Your task to perform on an android device: Empty the shopping cart on target. Search for macbook pro 15 inch on target, select the first entry, and add it to the cart. Image 0: 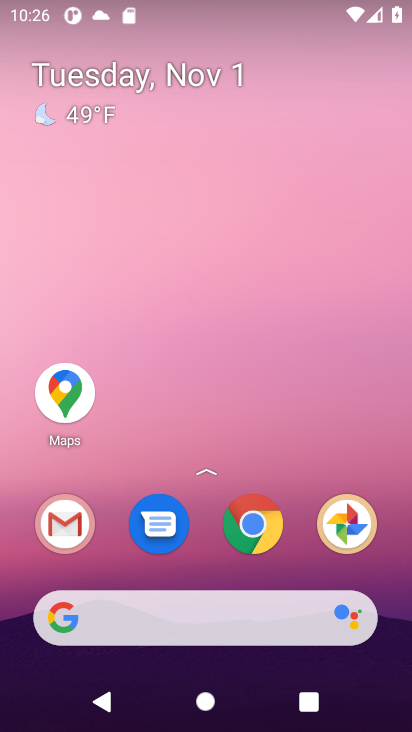
Step 0: press home button
Your task to perform on an android device: Empty the shopping cart on target. Search for macbook pro 15 inch on target, select the first entry, and add it to the cart. Image 1: 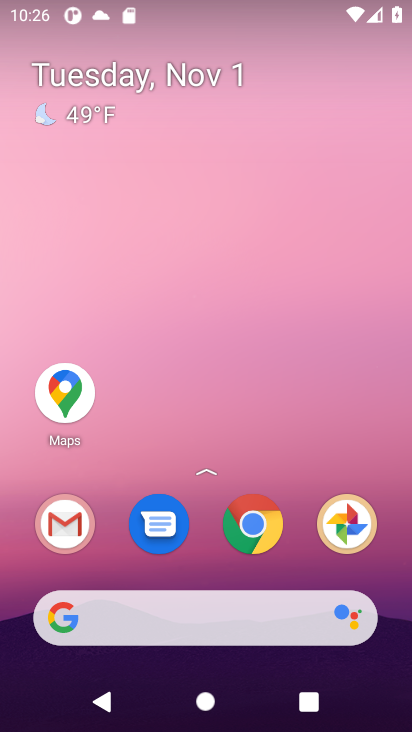
Step 1: click (80, 622)
Your task to perform on an android device: Empty the shopping cart on target. Search for macbook pro 15 inch on target, select the first entry, and add it to the cart. Image 2: 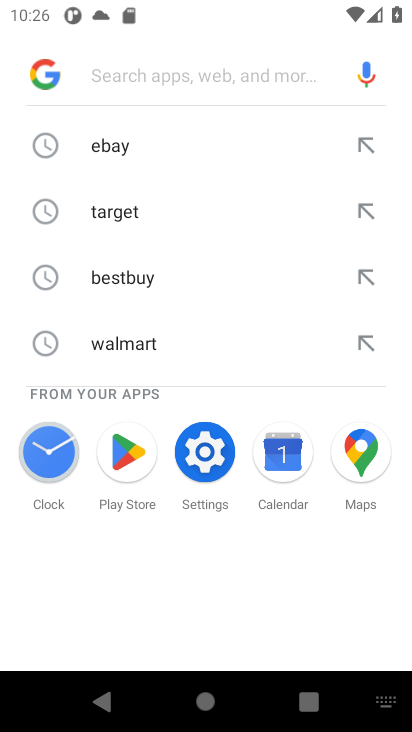
Step 2: click (148, 212)
Your task to perform on an android device: Empty the shopping cart on target. Search for macbook pro 15 inch on target, select the first entry, and add it to the cart. Image 3: 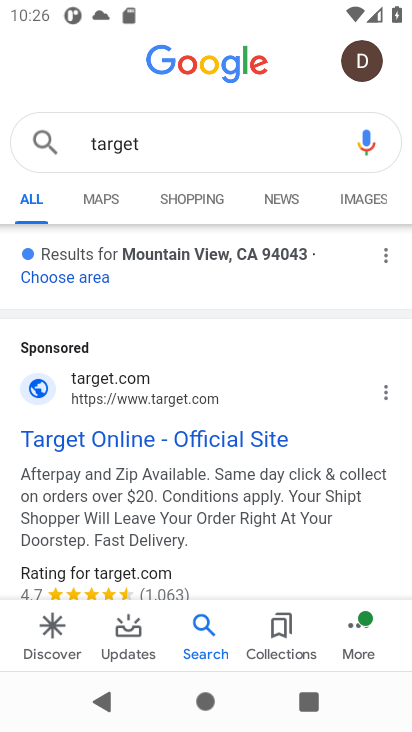
Step 3: drag from (256, 493) to (258, 296)
Your task to perform on an android device: Empty the shopping cart on target. Search for macbook pro 15 inch on target, select the first entry, and add it to the cart. Image 4: 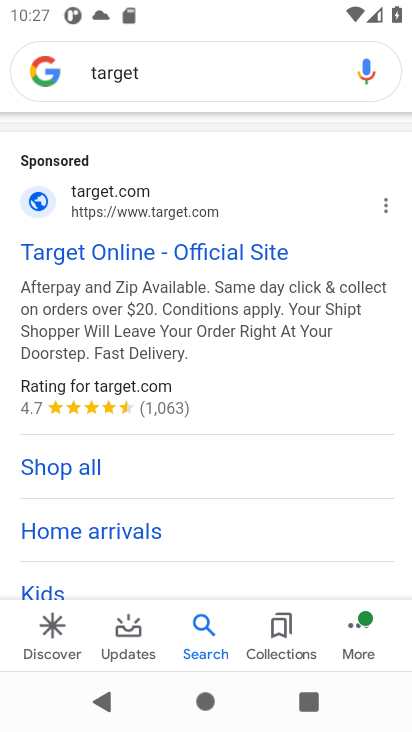
Step 4: click (142, 253)
Your task to perform on an android device: Empty the shopping cart on target. Search for macbook pro 15 inch on target, select the first entry, and add it to the cart. Image 5: 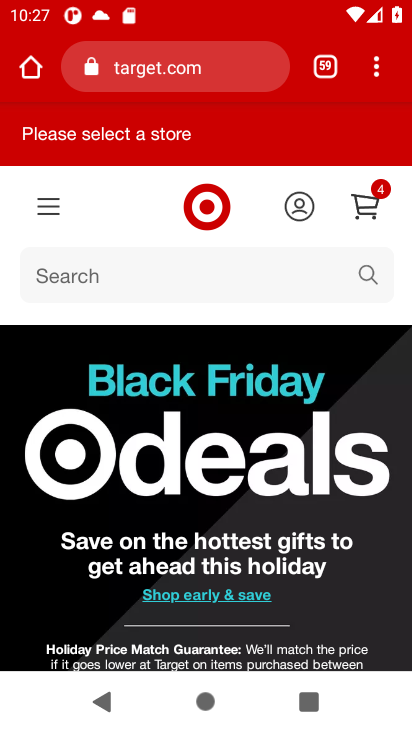
Step 5: click (373, 208)
Your task to perform on an android device: Empty the shopping cart on target. Search for macbook pro 15 inch on target, select the first entry, and add it to the cart. Image 6: 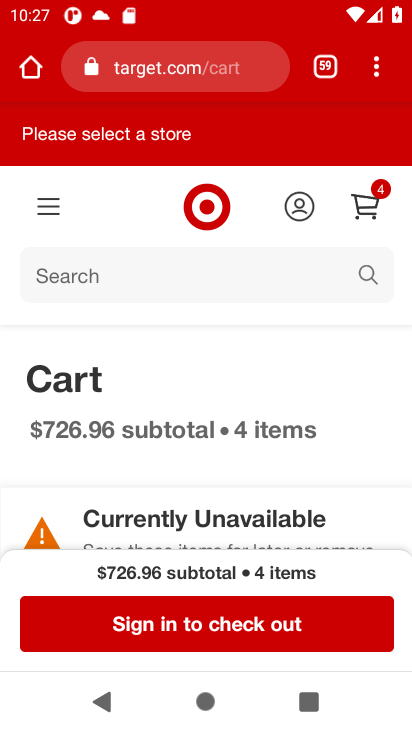
Step 6: drag from (206, 509) to (189, 182)
Your task to perform on an android device: Empty the shopping cart on target. Search for macbook pro 15 inch on target, select the first entry, and add it to the cart. Image 7: 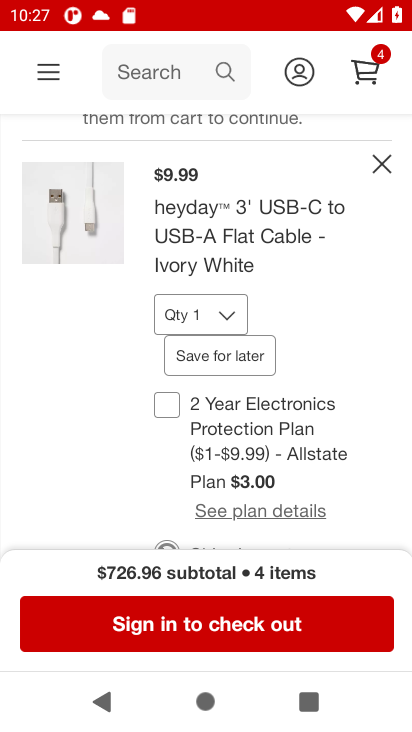
Step 7: drag from (195, 441) to (175, 228)
Your task to perform on an android device: Empty the shopping cart on target. Search for macbook pro 15 inch on target, select the first entry, and add it to the cart. Image 8: 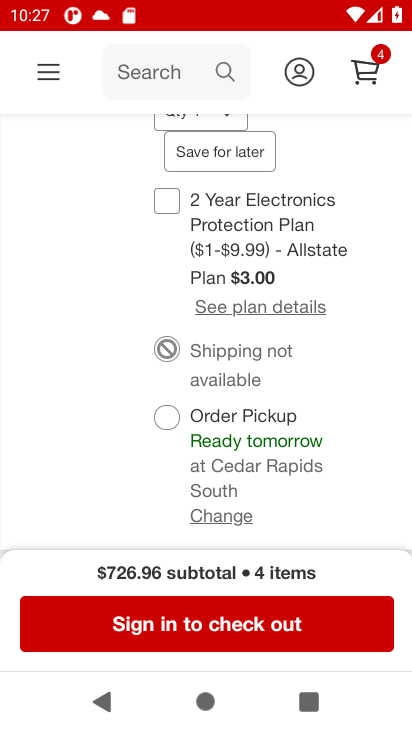
Step 8: drag from (212, 438) to (216, 186)
Your task to perform on an android device: Empty the shopping cart on target. Search for macbook pro 15 inch on target, select the first entry, and add it to the cart. Image 9: 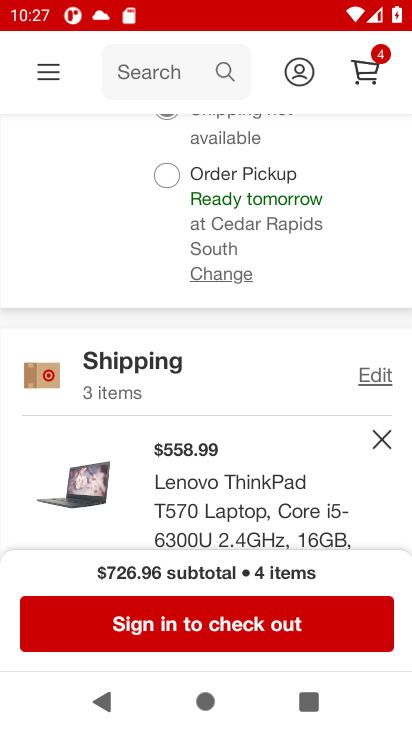
Step 9: drag from (217, 499) to (218, 183)
Your task to perform on an android device: Empty the shopping cart on target. Search for macbook pro 15 inch on target, select the first entry, and add it to the cart. Image 10: 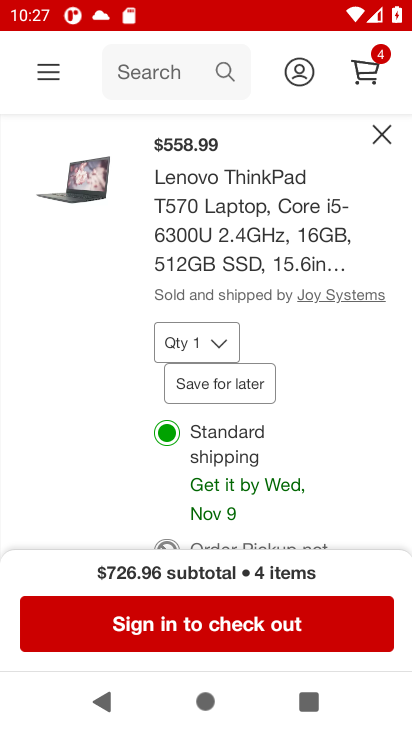
Step 10: drag from (239, 514) to (245, 179)
Your task to perform on an android device: Empty the shopping cart on target. Search for macbook pro 15 inch on target, select the first entry, and add it to the cart. Image 11: 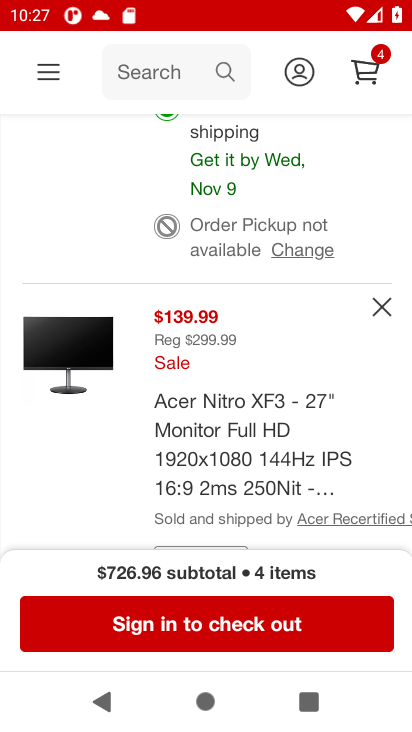
Step 11: click (382, 306)
Your task to perform on an android device: Empty the shopping cart on target. Search for macbook pro 15 inch on target, select the first entry, and add it to the cart. Image 12: 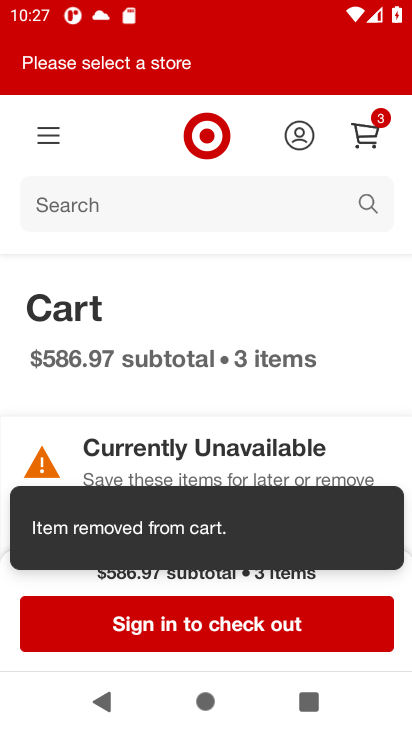
Step 12: drag from (322, 408) to (296, 181)
Your task to perform on an android device: Empty the shopping cart on target. Search for macbook pro 15 inch on target, select the first entry, and add it to the cart. Image 13: 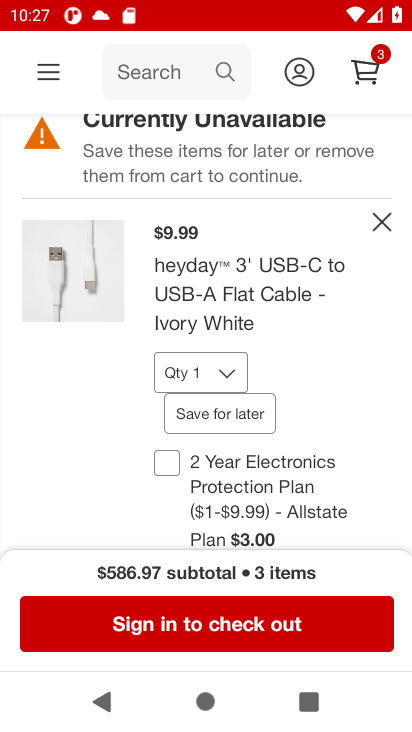
Step 13: click (385, 221)
Your task to perform on an android device: Empty the shopping cart on target. Search for macbook pro 15 inch on target, select the first entry, and add it to the cart. Image 14: 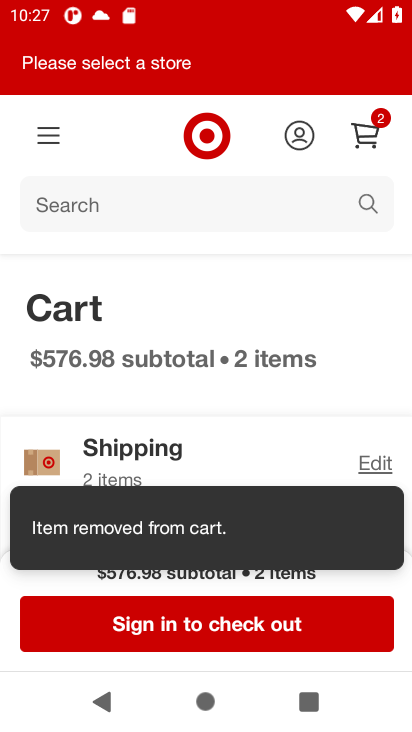
Step 14: drag from (297, 403) to (290, 195)
Your task to perform on an android device: Empty the shopping cart on target. Search for macbook pro 15 inch on target, select the first entry, and add it to the cart. Image 15: 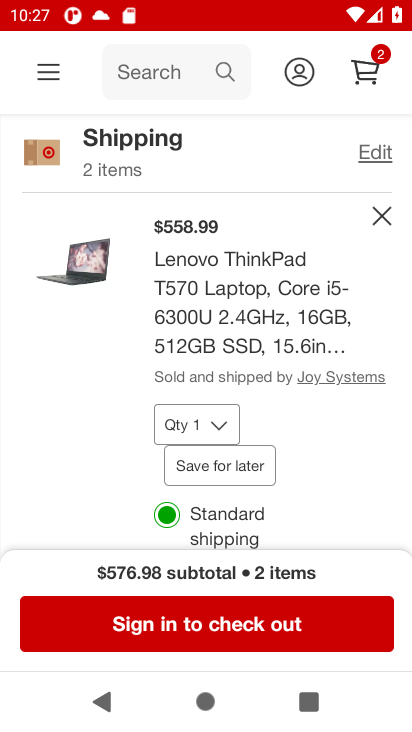
Step 15: click (380, 214)
Your task to perform on an android device: Empty the shopping cart on target. Search for macbook pro 15 inch on target, select the first entry, and add it to the cart. Image 16: 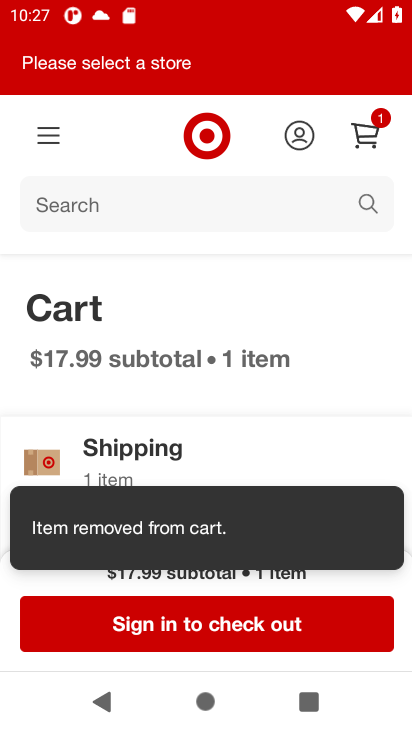
Step 16: drag from (309, 448) to (309, 223)
Your task to perform on an android device: Empty the shopping cart on target. Search for macbook pro 15 inch on target, select the first entry, and add it to the cart. Image 17: 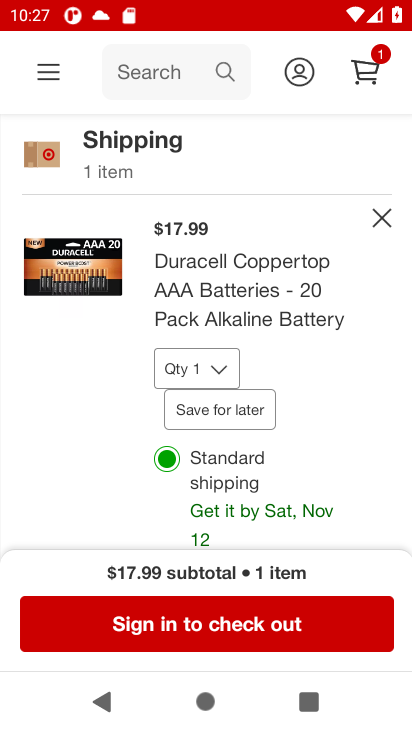
Step 17: click (378, 215)
Your task to perform on an android device: Empty the shopping cart on target. Search for macbook pro 15 inch on target, select the first entry, and add it to the cart. Image 18: 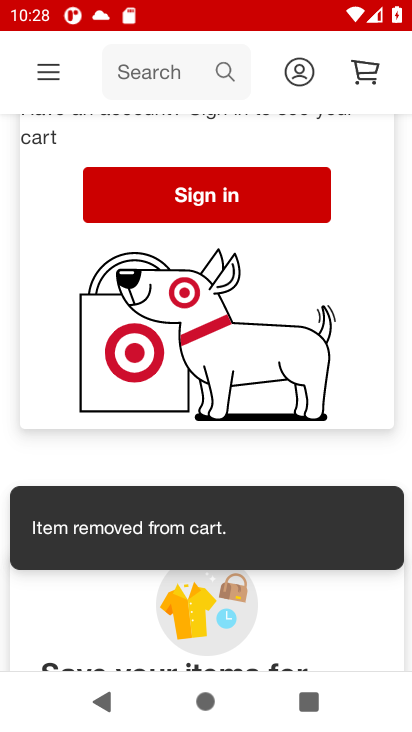
Step 18: drag from (255, 155) to (251, 455)
Your task to perform on an android device: Empty the shopping cart on target. Search for macbook pro 15 inch on target, select the first entry, and add it to the cart. Image 19: 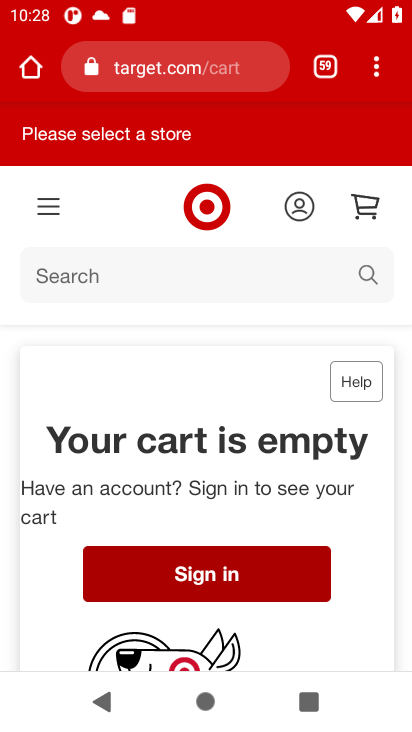
Step 19: click (65, 275)
Your task to perform on an android device: Empty the shopping cart on target. Search for macbook pro 15 inch on target, select the first entry, and add it to the cart. Image 20: 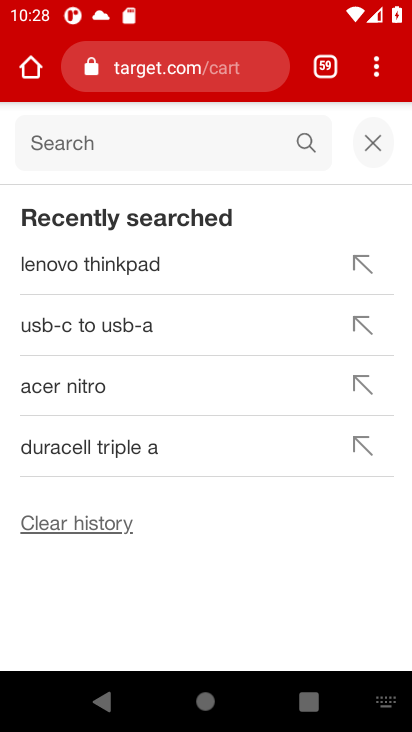
Step 20: type "macbook pro 15 inch"
Your task to perform on an android device: Empty the shopping cart on target. Search for macbook pro 15 inch on target, select the first entry, and add it to the cart. Image 21: 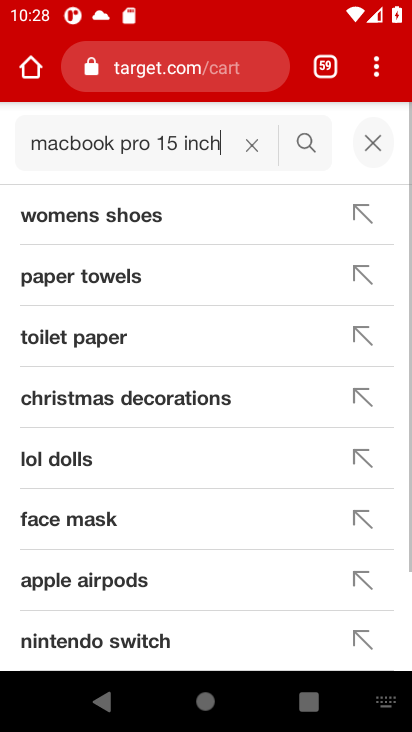
Step 21: press enter
Your task to perform on an android device: Empty the shopping cart on target. Search for macbook pro 15 inch on target, select the first entry, and add it to the cart. Image 22: 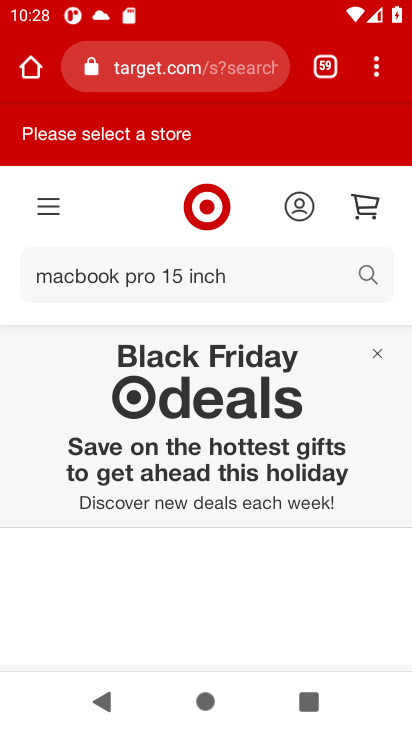
Step 22: task complete